Your task to perform on an android device: Show me popular games on the Play Store Image 0: 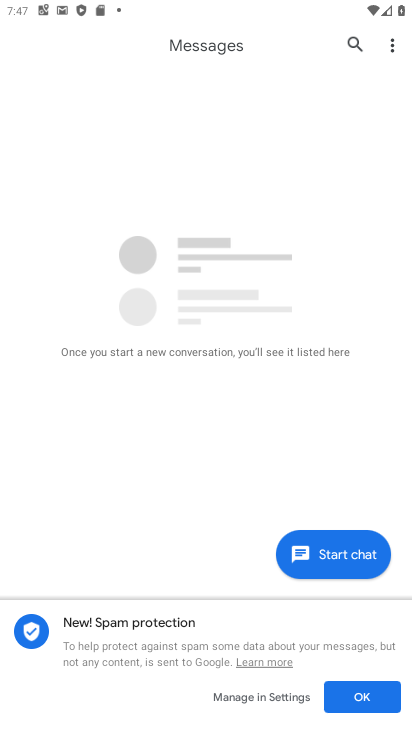
Step 0: press home button
Your task to perform on an android device: Show me popular games on the Play Store Image 1: 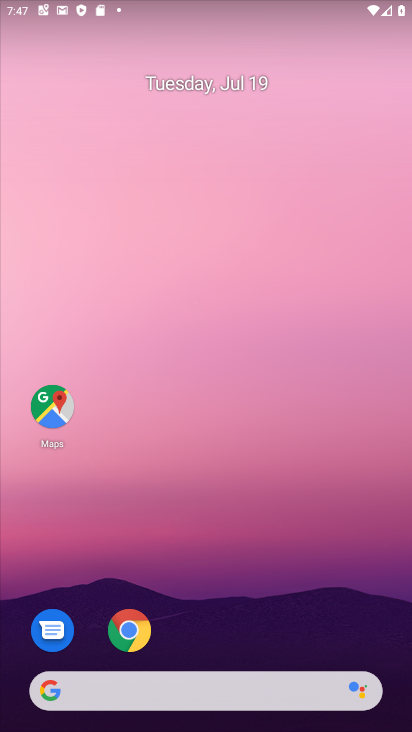
Step 1: drag from (296, 644) to (265, 53)
Your task to perform on an android device: Show me popular games on the Play Store Image 2: 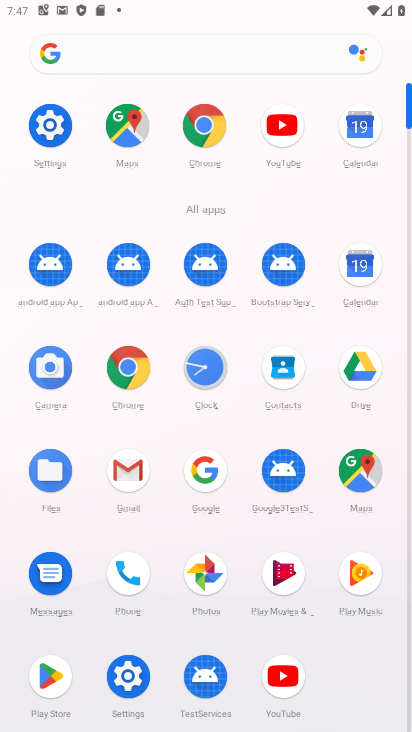
Step 2: click (49, 677)
Your task to perform on an android device: Show me popular games on the Play Store Image 3: 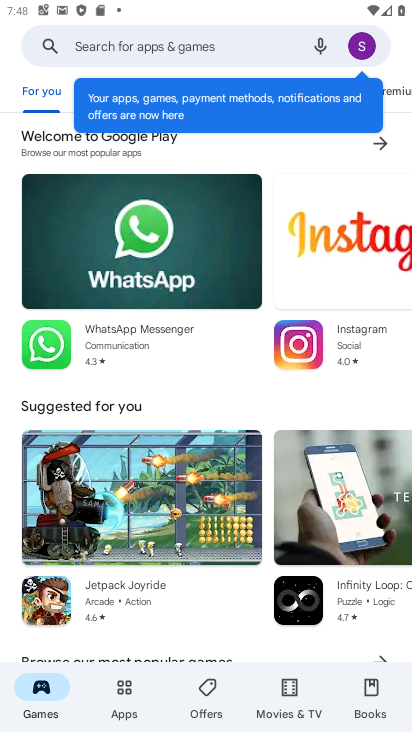
Step 3: task complete